Your task to perform on an android device: Go to CNN.com Image 0: 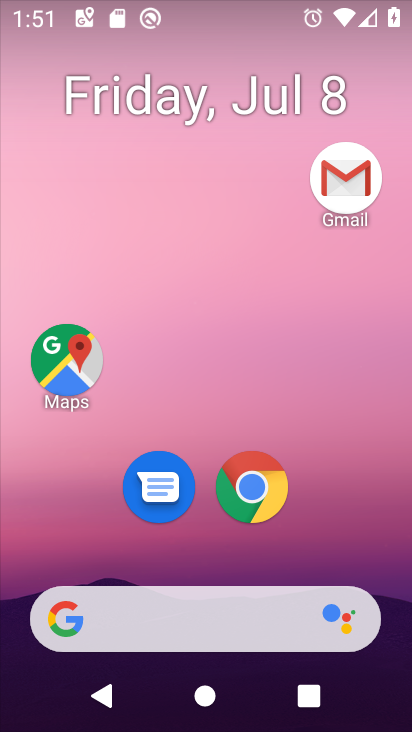
Step 0: drag from (337, 508) to (384, 171)
Your task to perform on an android device: Go to CNN.com Image 1: 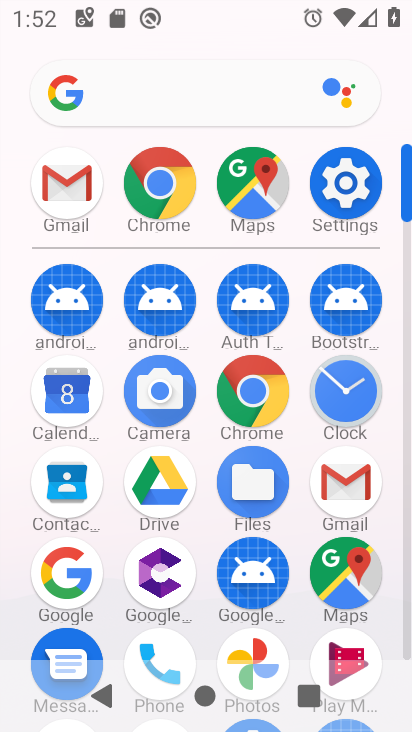
Step 1: click (262, 391)
Your task to perform on an android device: Go to CNN.com Image 2: 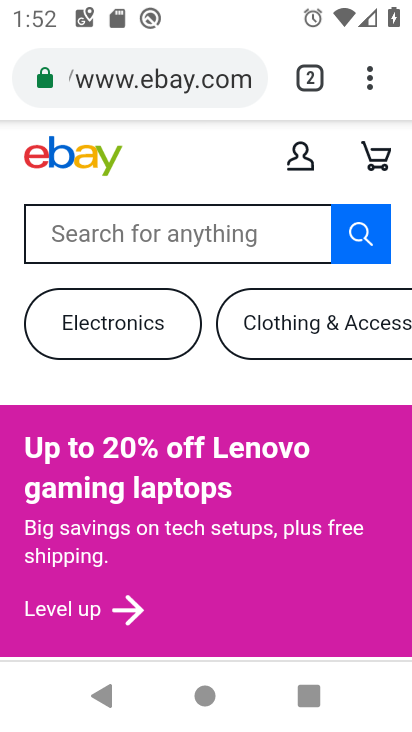
Step 2: click (195, 66)
Your task to perform on an android device: Go to CNN.com Image 3: 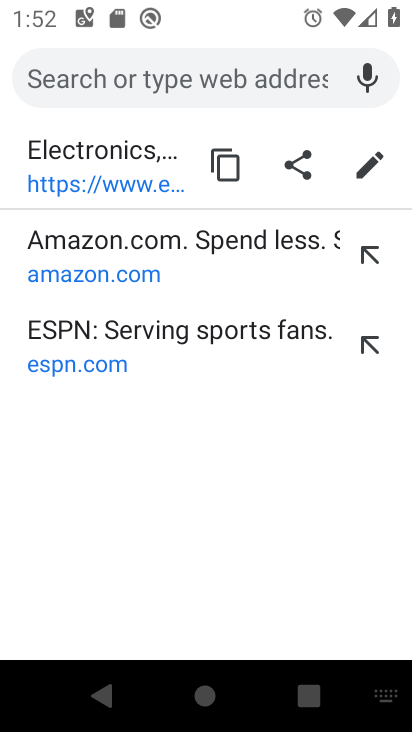
Step 3: type "cnn.com"
Your task to perform on an android device: Go to CNN.com Image 4: 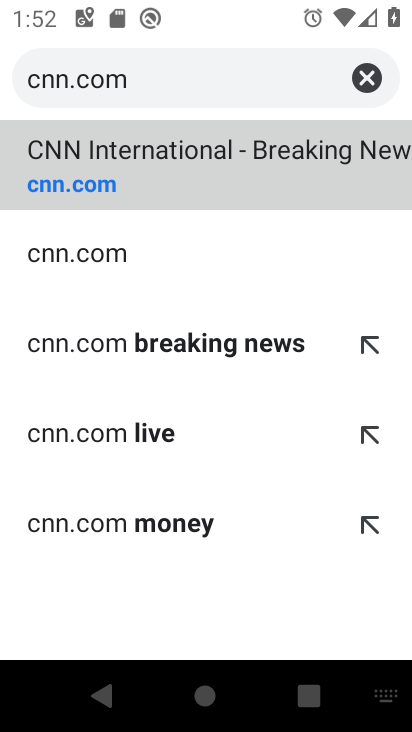
Step 4: click (151, 180)
Your task to perform on an android device: Go to CNN.com Image 5: 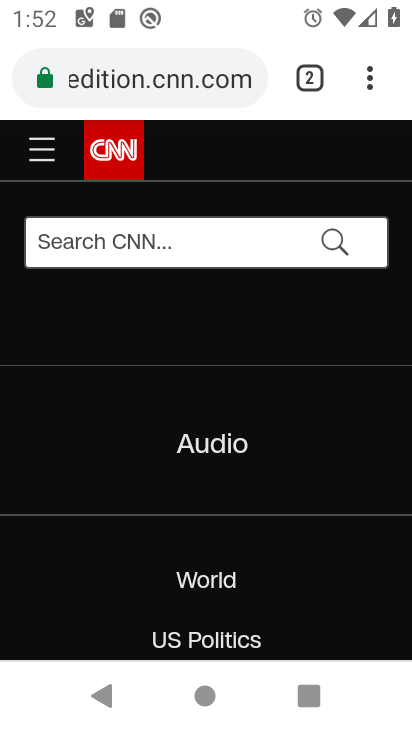
Step 5: task complete